Your task to perform on an android device: Open the web browser Image 0: 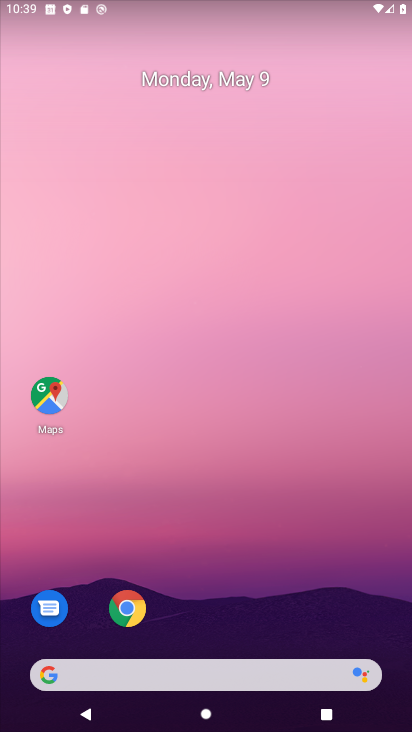
Step 0: click (117, 617)
Your task to perform on an android device: Open the web browser Image 1: 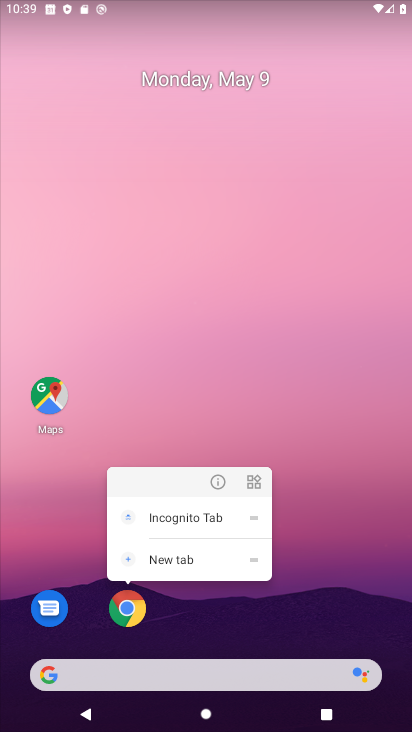
Step 1: click (123, 613)
Your task to perform on an android device: Open the web browser Image 2: 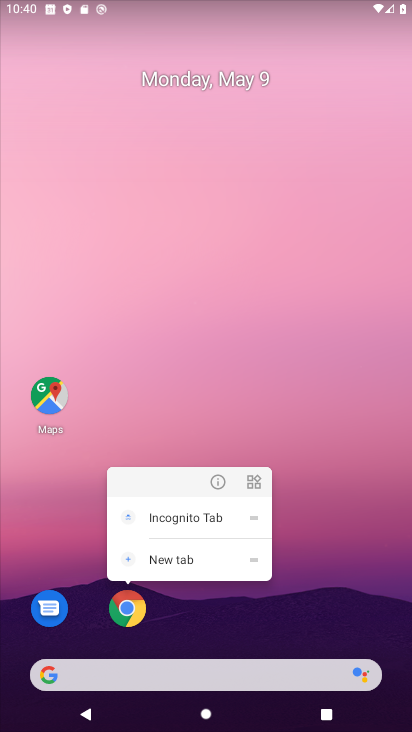
Step 2: click (141, 611)
Your task to perform on an android device: Open the web browser Image 3: 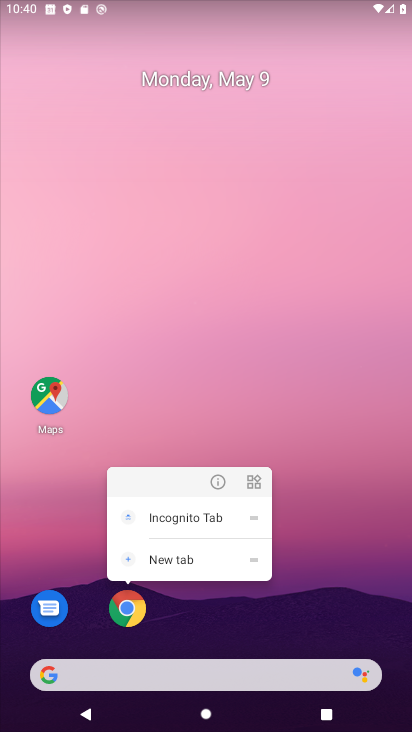
Step 3: click (135, 603)
Your task to perform on an android device: Open the web browser Image 4: 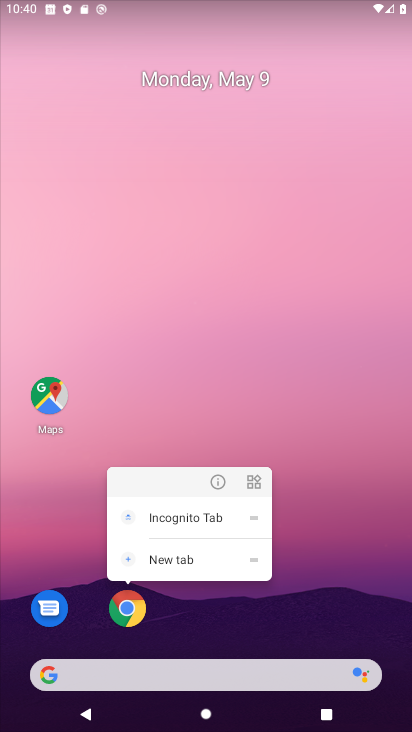
Step 4: click (137, 620)
Your task to perform on an android device: Open the web browser Image 5: 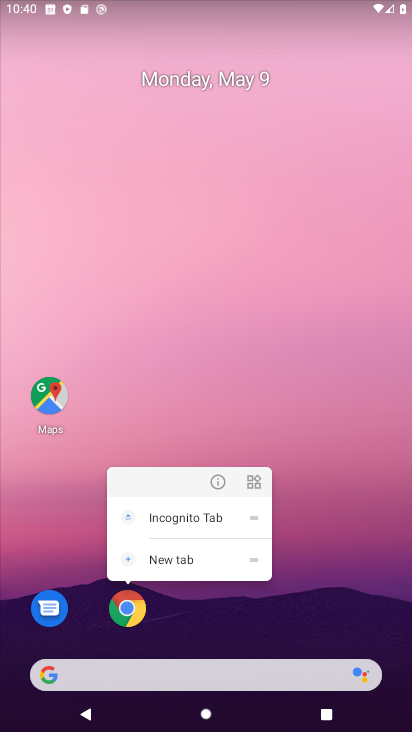
Step 5: click (126, 610)
Your task to perform on an android device: Open the web browser Image 6: 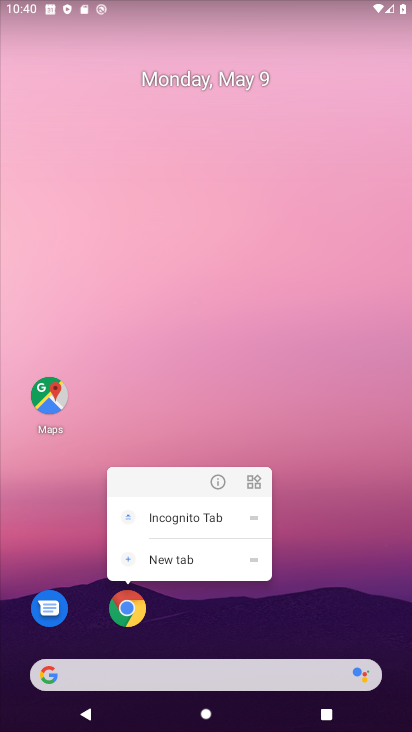
Step 6: click (126, 602)
Your task to perform on an android device: Open the web browser Image 7: 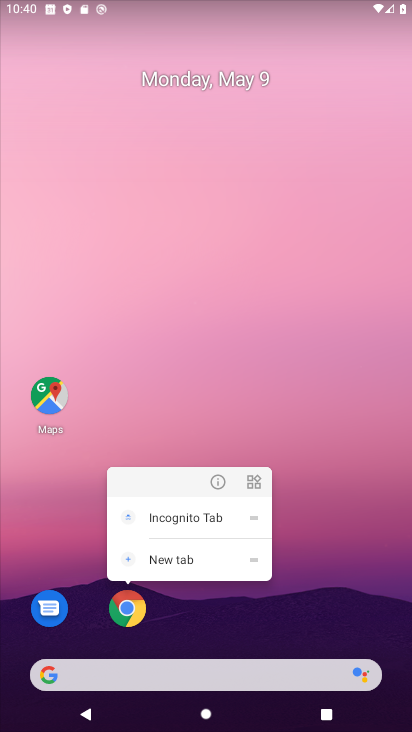
Step 7: click (125, 612)
Your task to perform on an android device: Open the web browser Image 8: 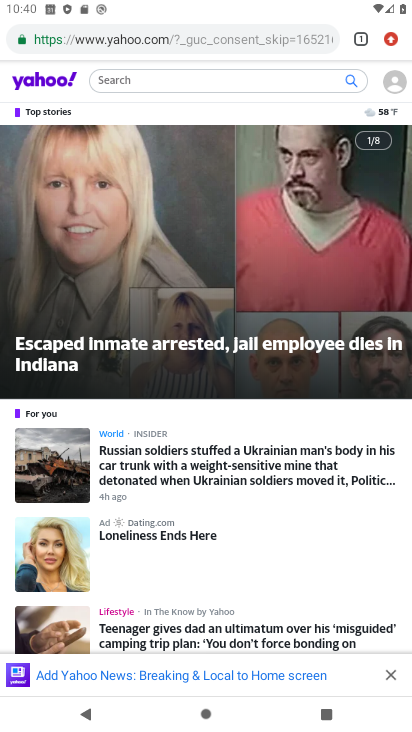
Step 8: task complete